Your task to perform on an android device: change timer sound Image 0: 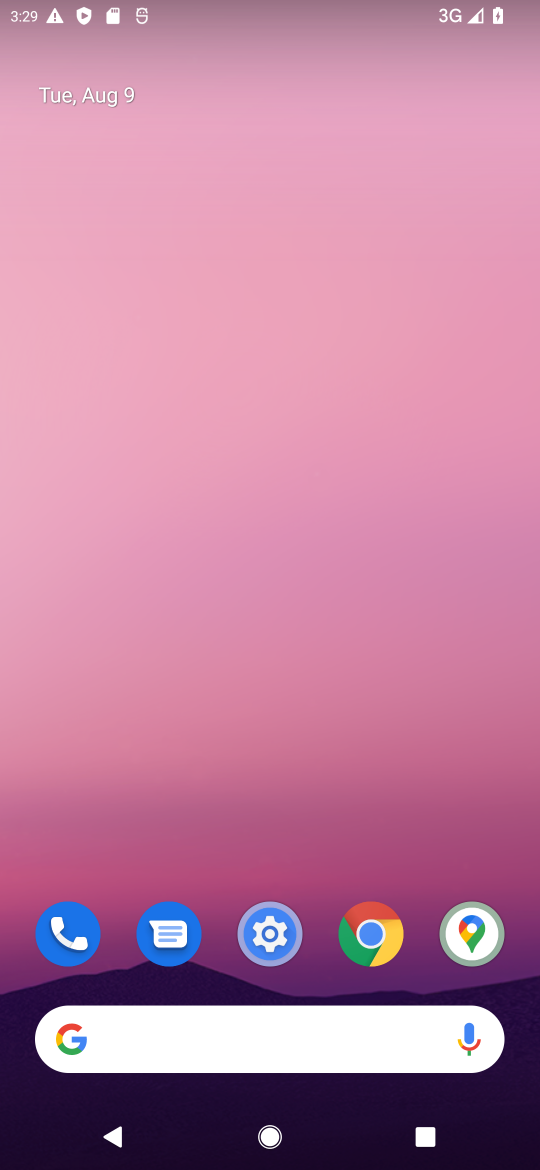
Step 0: drag from (209, 991) to (389, 32)
Your task to perform on an android device: change timer sound Image 1: 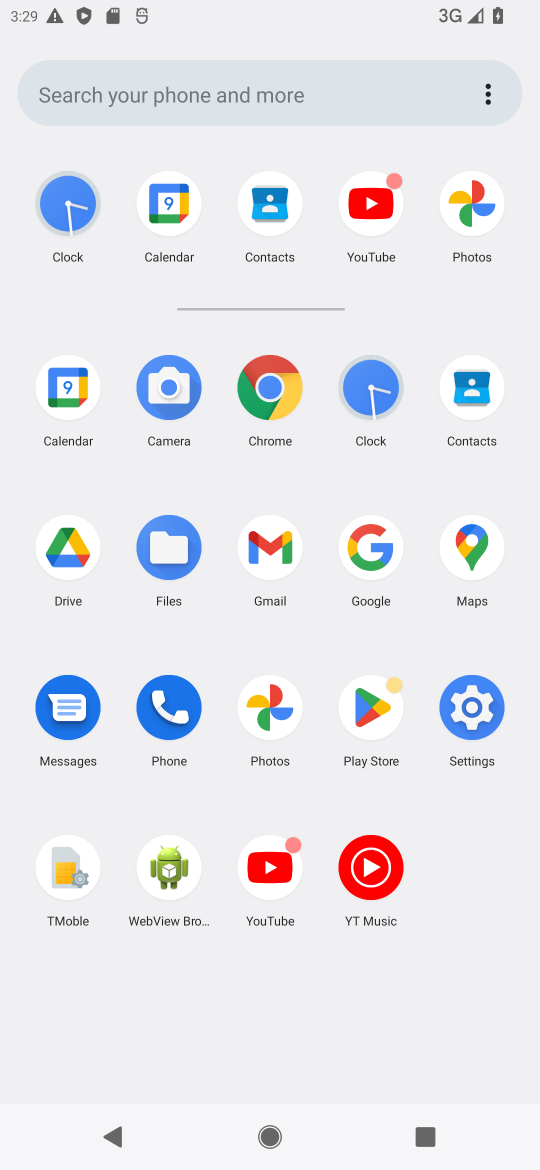
Step 1: click (486, 726)
Your task to perform on an android device: change timer sound Image 2: 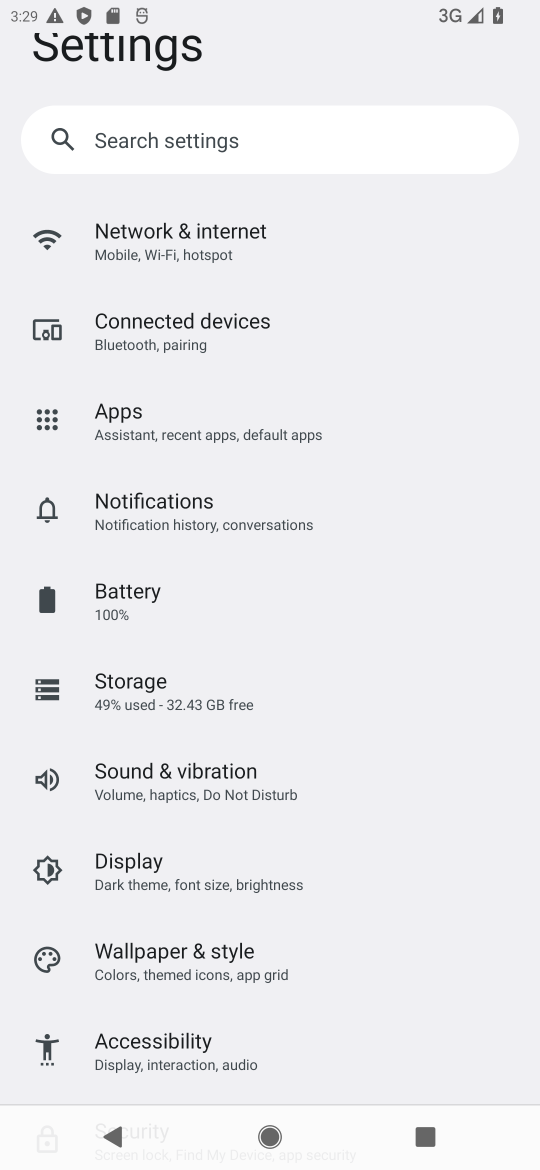
Step 2: task complete